Your task to perform on an android device: Search for dining room chairs on Crate & Barrel Image 0: 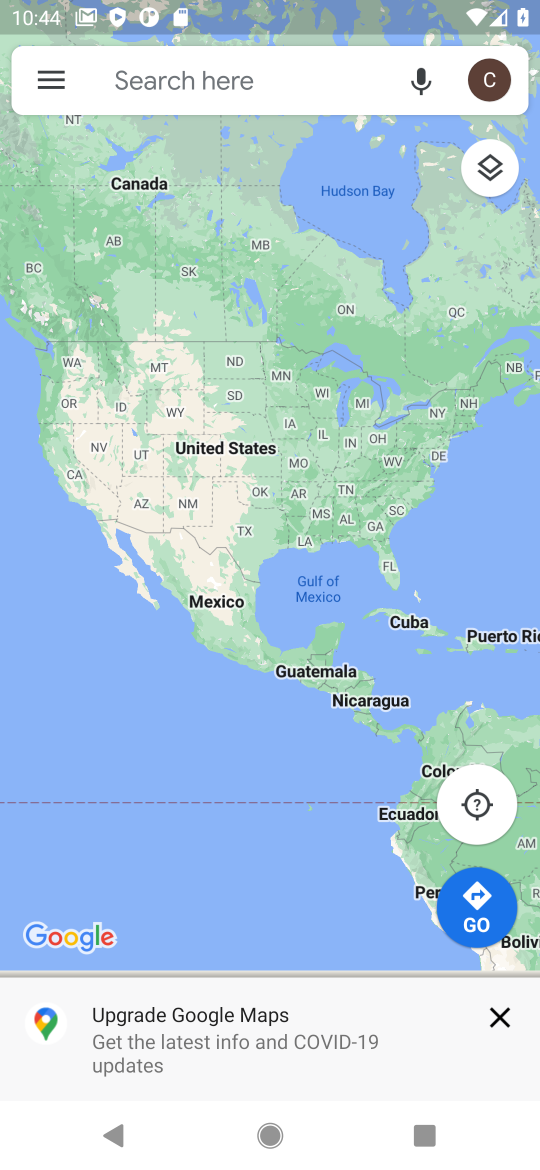
Step 0: press back button
Your task to perform on an android device: Search for dining room chairs on Crate & Barrel Image 1: 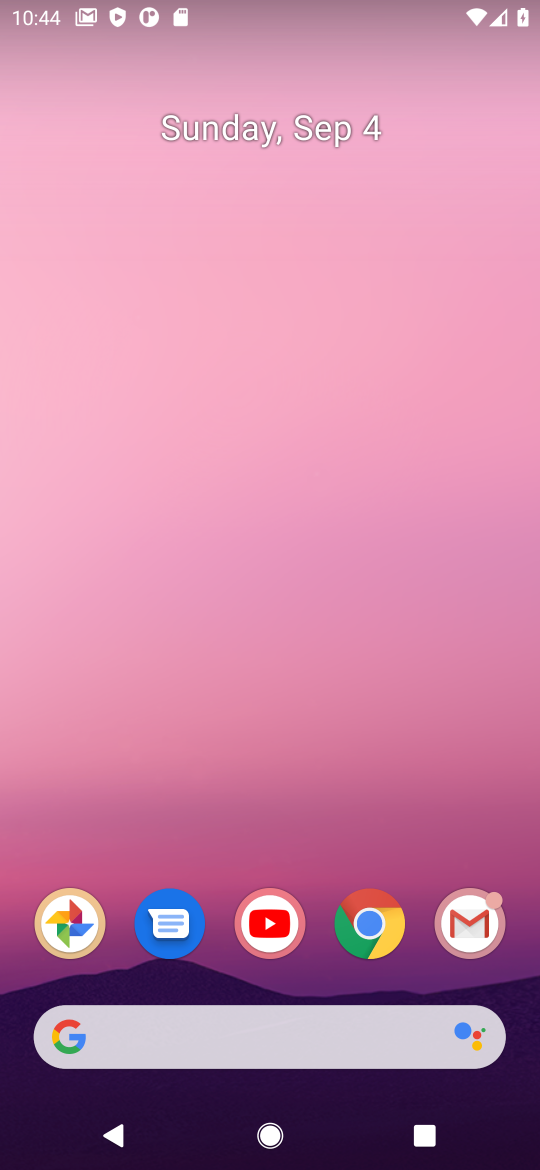
Step 1: click (340, 924)
Your task to perform on an android device: Search for dining room chairs on Crate & Barrel Image 2: 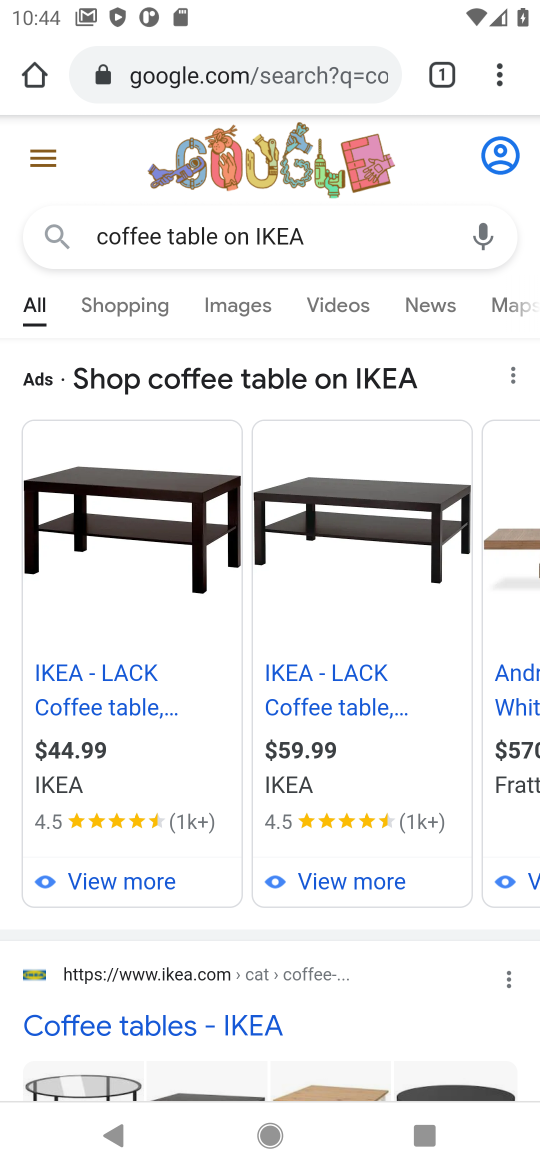
Step 2: click (135, 53)
Your task to perform on an android device: Search for dining room chairs on Crate & Barrel Image 3: 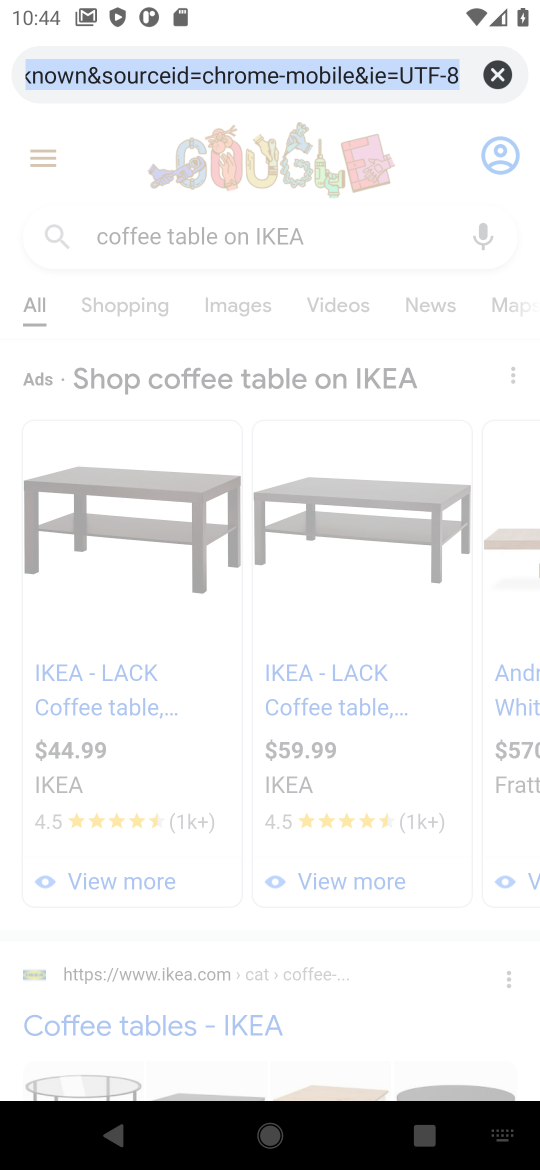
Step 3: click (500, 73)
Your task to perform on an android device: Search for dining room chairs on Crate & Barrel Image 4: 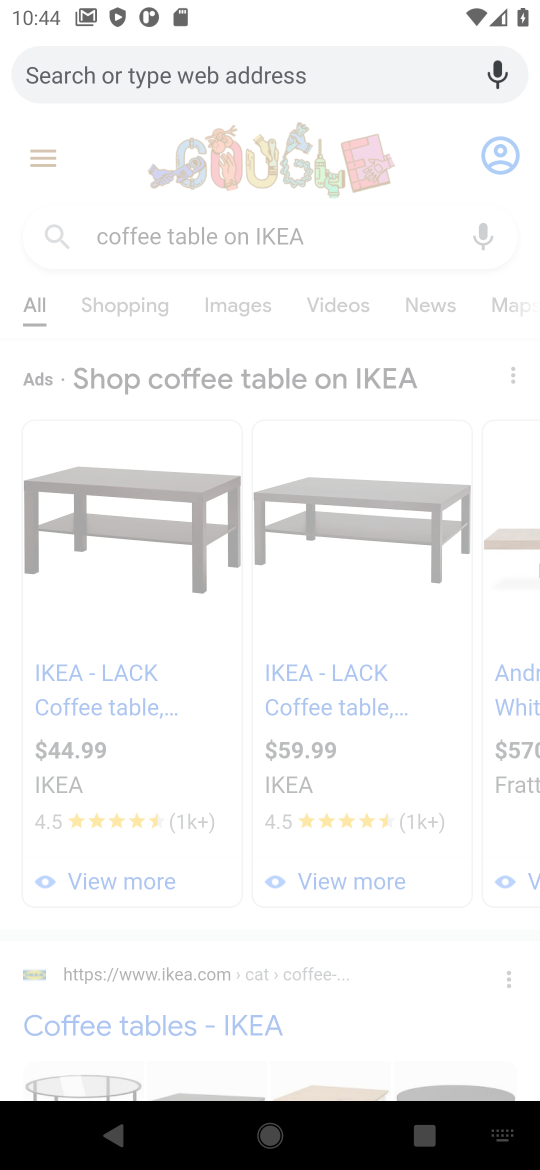
Step 4: type "dining room chairs on Crate & Barrel"
Your task to perform on an android device: Search for dining room chairs on Crate & Barrel Image 5: 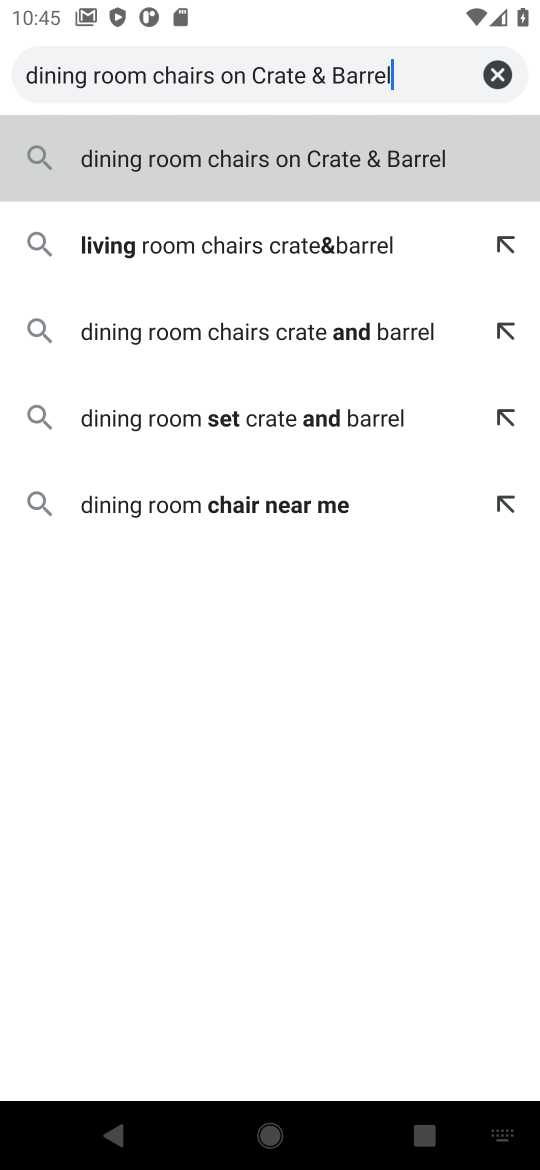
Step 5: click (244, 160)
Your task to perform on an android device: Search for dining room chairs on Crate & Barrel Image 6: 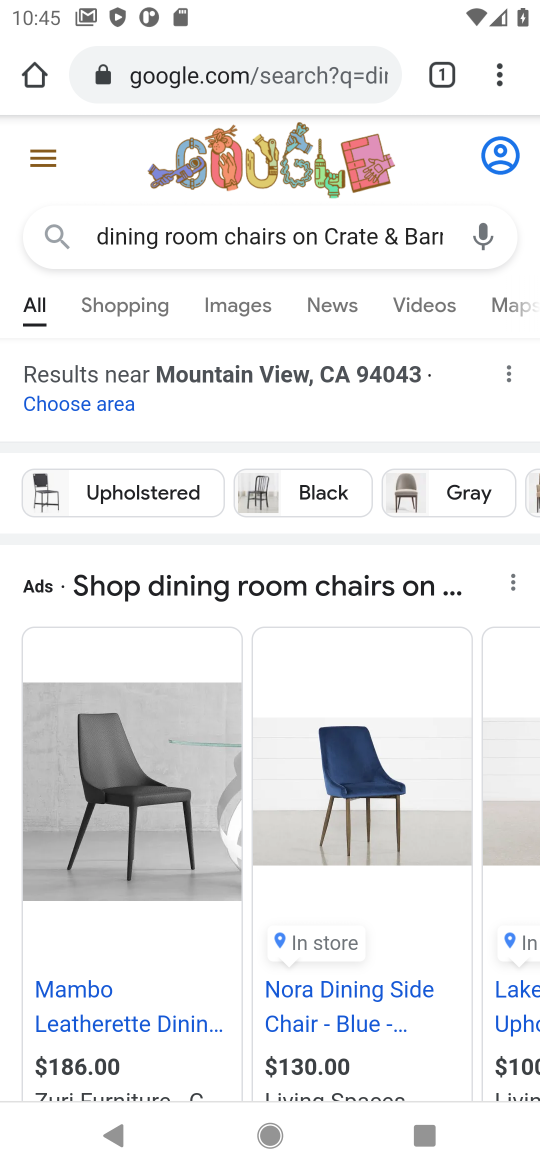
Step 6: click (131, 433)
Your task to perform on an android device: Search for dining room chairs on Crate & Barrel Image 7: 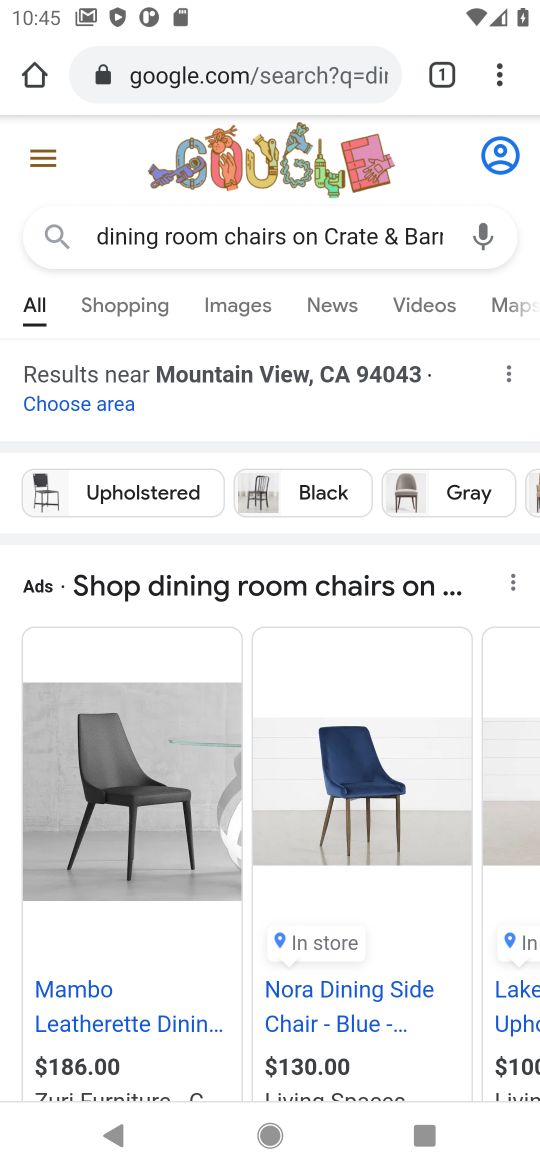
Step 7: task complete